Your task to perform on an android device: Go to battery settings Image 0: 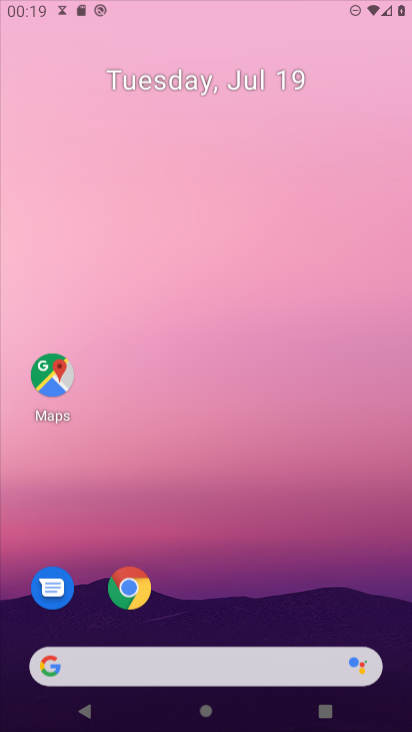
Step 0: press home button
Your task to perform on an android device: Go to battery settings Image 1: 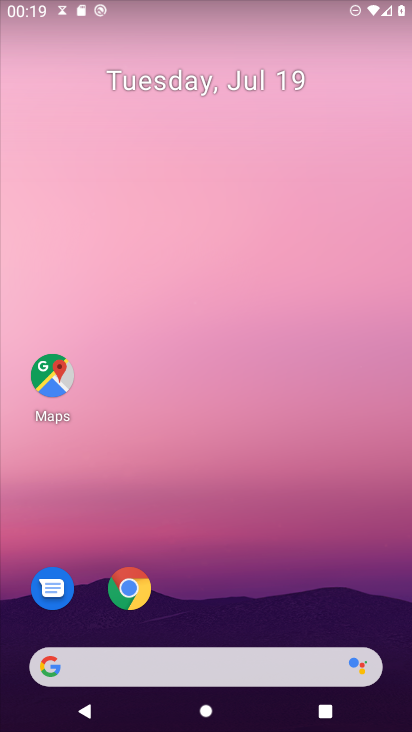
Step 1: drag from (290, 590) to (347, 128)
Your task to perform on an android device: Go to battery settings Image 2: 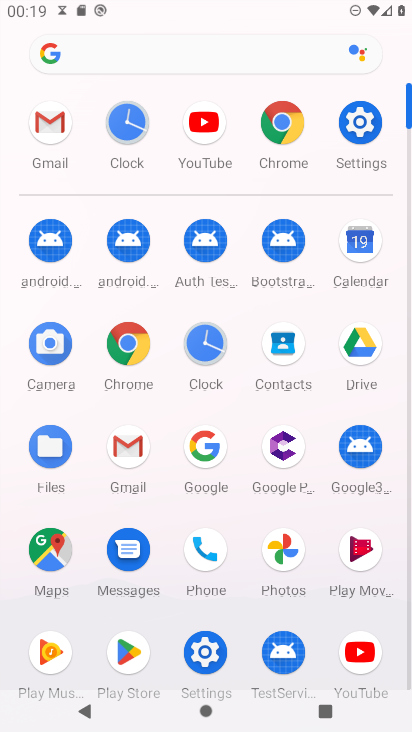
Step 2: click (363, 119)
Your task to perform on an android device: Go to battery settings Image 3: 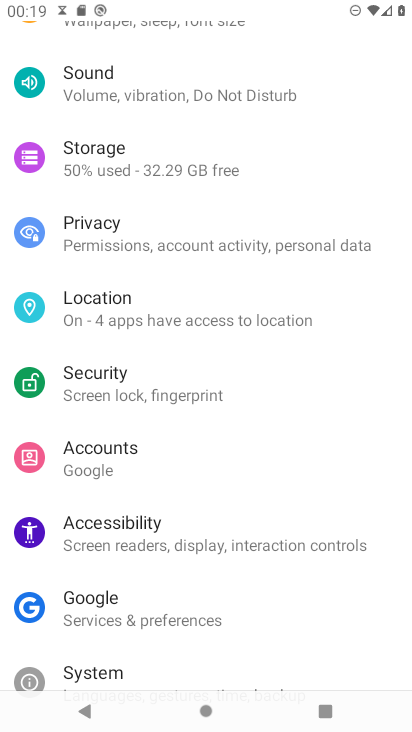
Step 3: drag from (125, 122) to (103, 488)
Your task to perform on an android device: Go to battery settings Image 4: 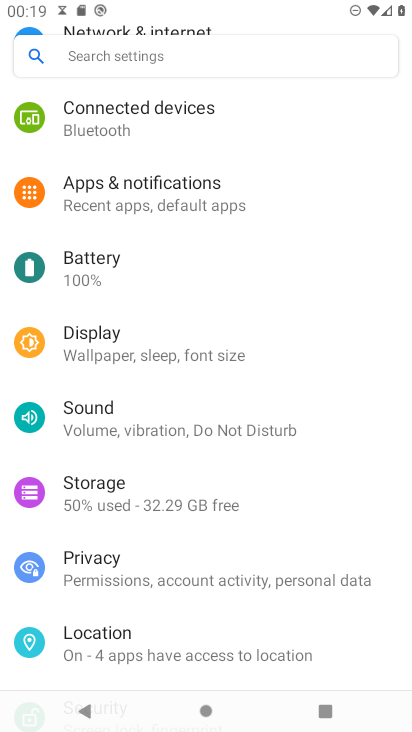
Step 4: click (117, 268)
Your task to perform on an android device: Go to battery settings Image 5: 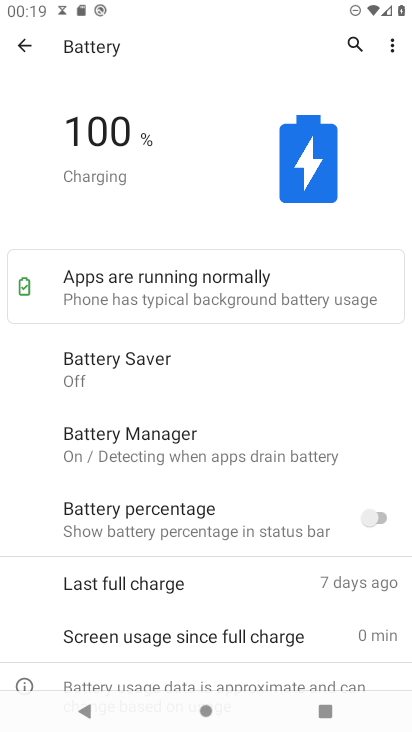
Step 5: task complete